Your task to perform on an android device: Open Google Maps and go to "Timeline" Image 0: 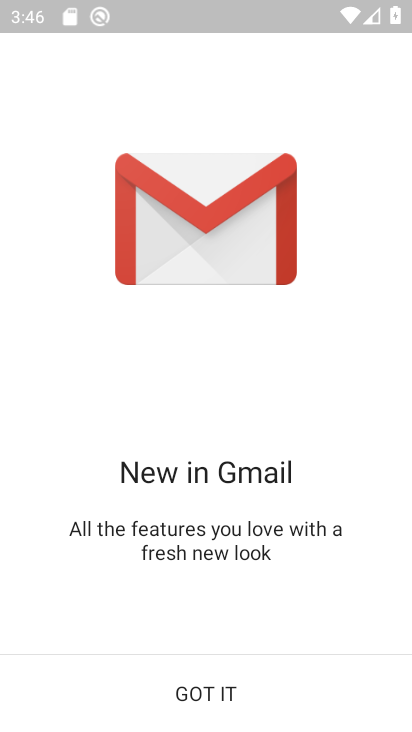
Step 0: press home button
Your task to perform on an android device: Open Google Maps and go to "Timeline" Image 1: 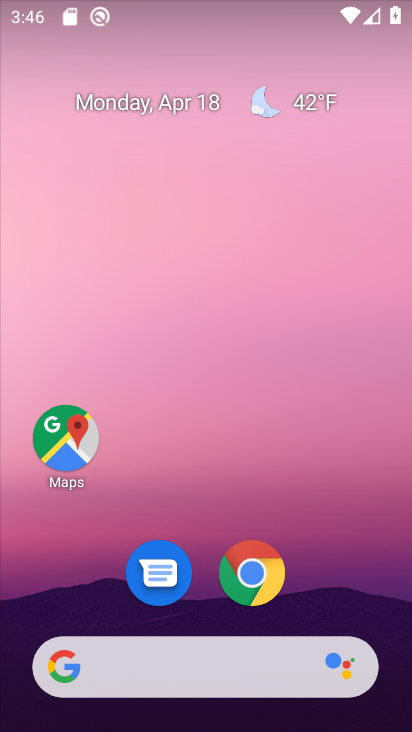
Step 1: click (70, 436)
Your task to perform on an android device: Open Google Maps and go to "Timeline" Image 2: 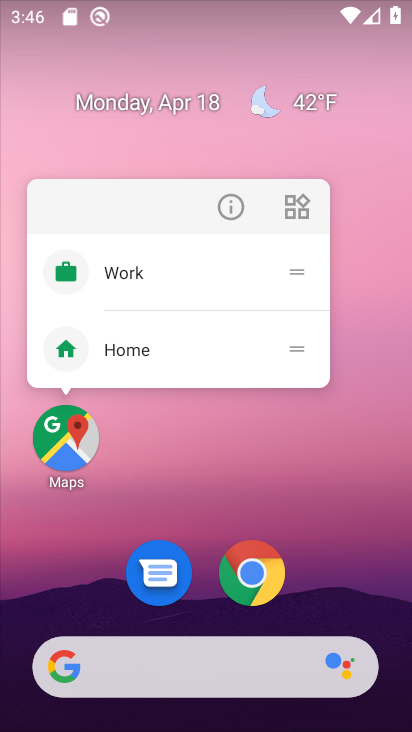
Step 2: click (76, 422)
Your task to perform on an android device: Open Google Maps and go to "Timeline" Image 3: 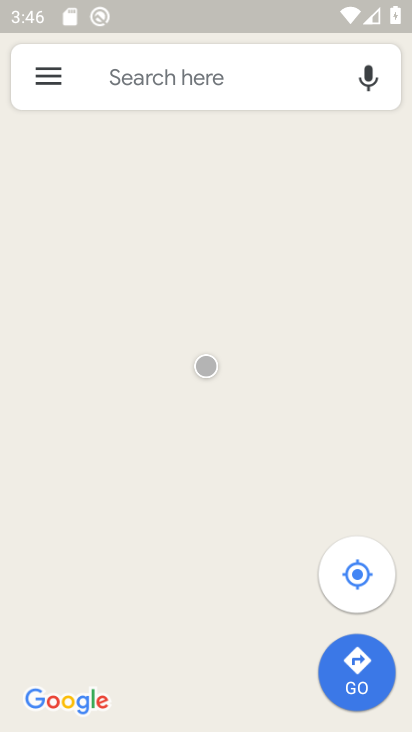
Step 3: click (47, 82)
Your task to perform on an android device: Open Google Maps and go to "Timeline" Image 4: 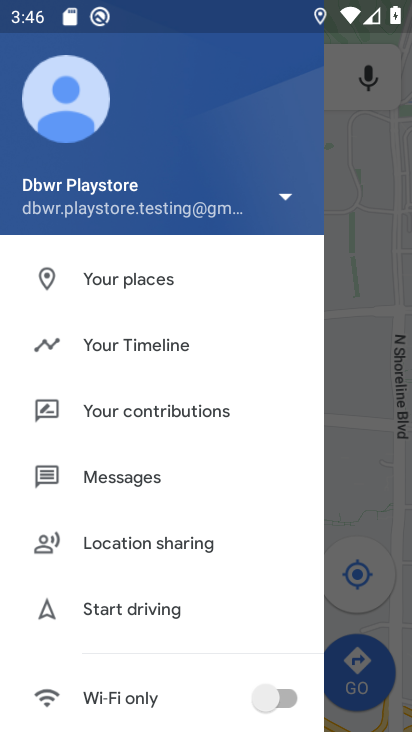
Step 4: click (143, 344)
Your task to perform on an android device: Open Google Maps and go to "Timeline" Image 5: 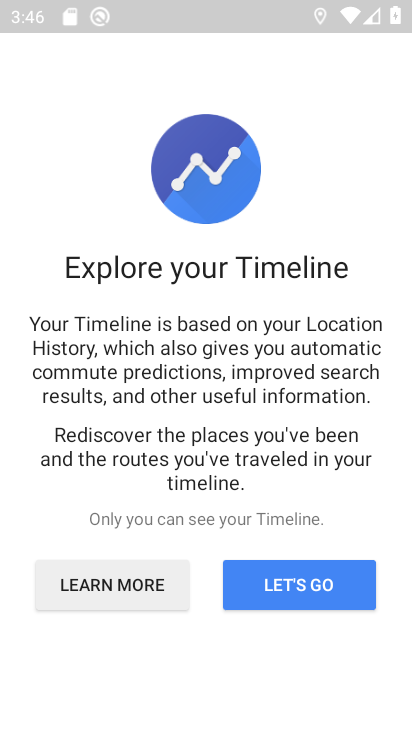
Step 5: click (293, 587)
Your task to perform on an android device: Open Google Maps and go to "Timeline" Image 6: 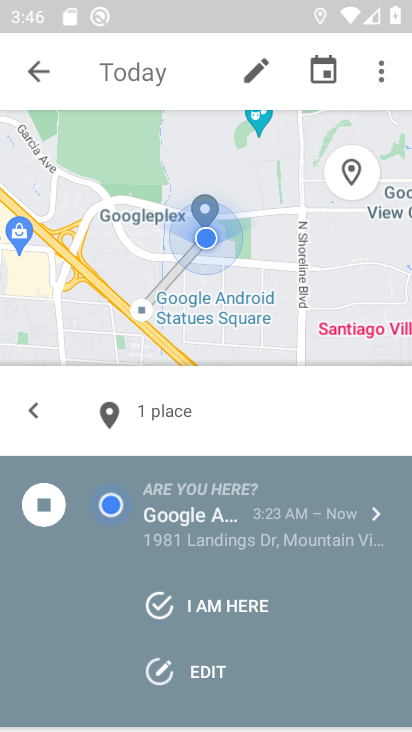
Step 6: task complete